Your task to perform on an android device: turn off wifi Image 0: 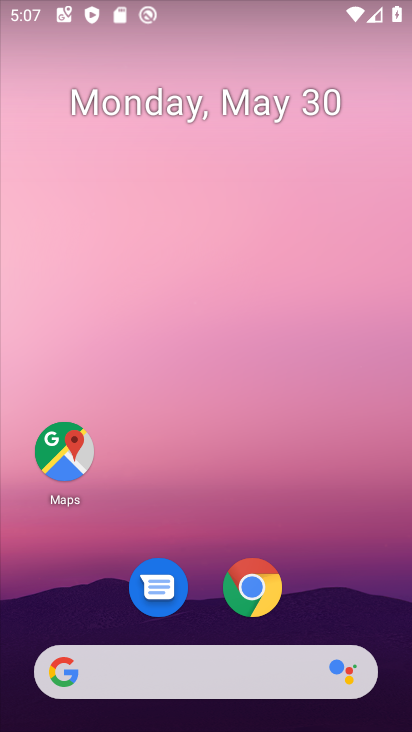
Step 0: drag from (320, 598) to (226, 60)
Your task to perform on an android device: turn off wifi Image 1: 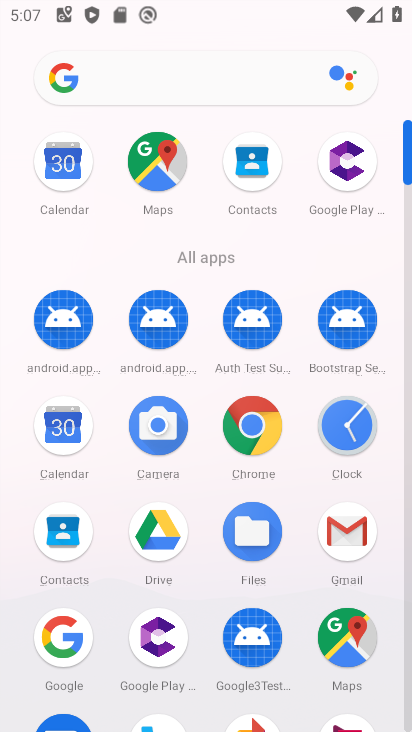
Step 1: drag from (204, 587) to (181, 321)
Your task to perform on an android device: turn off wifi Image 2: 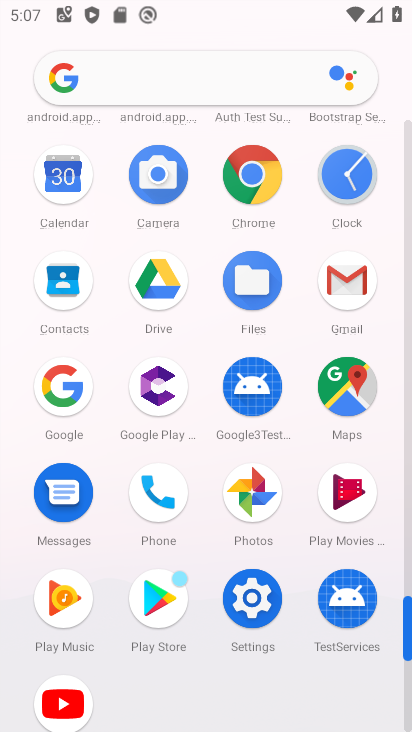
Step 2: click (251, 599)
Your task to perform on an android device: turn off wifi Image 3: 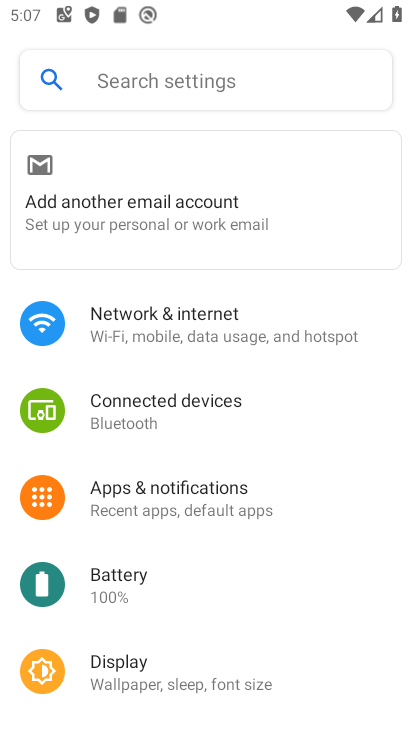
Step 3: click (161, 333)
Your task to perform on an android device: turn off wifi Image 4: 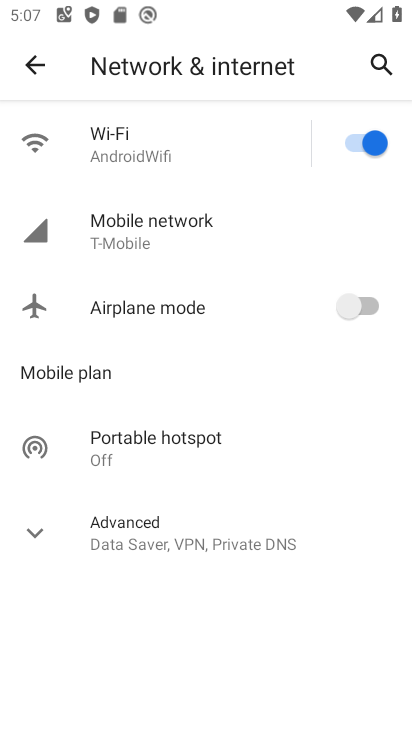
Step 4: click (372, 146)
Your task to perform on an android device: turn off wifi Image 5: 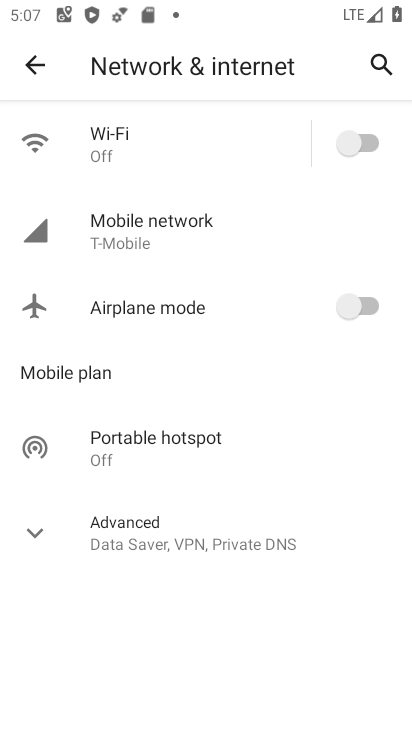
Step 5: task complete